Your task to perform on an android device: Open Amazon Image 0: 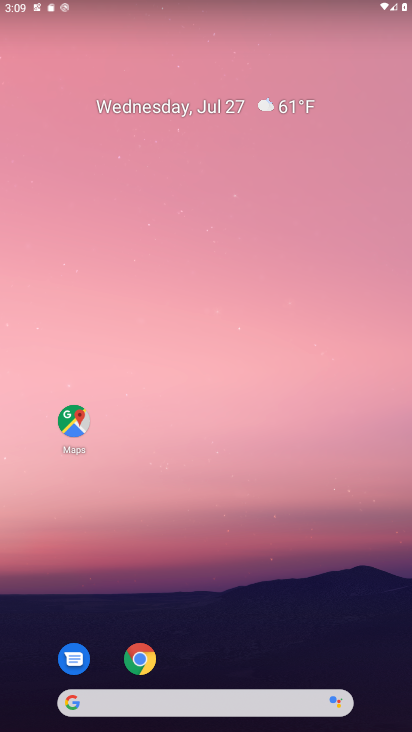
Step 0: click (136, 666)
Your task to perform on an android device: Open Amazon Image 1: 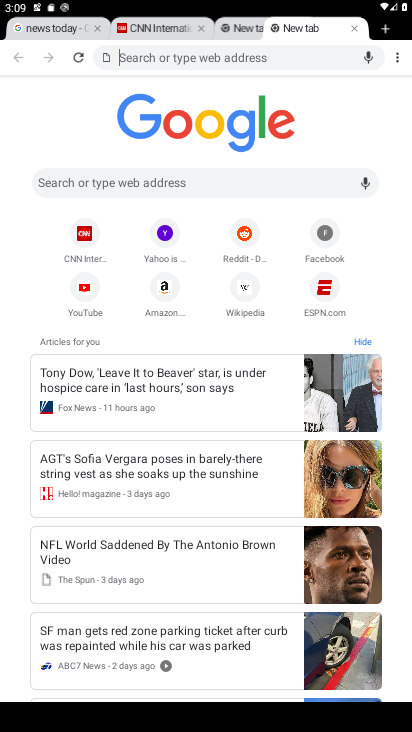
Step 1: click (163, 292)
Your task to perform on an android device: Open Amazon Image 2: 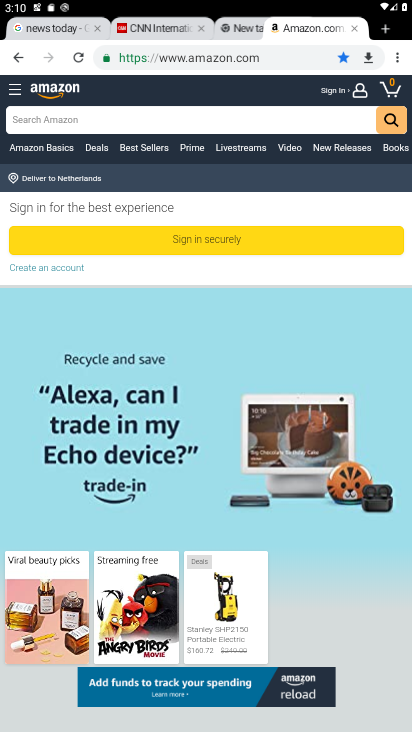
Step 2: task complete